Your task to perform on an android device: add a contact in the contacts app Image 0: 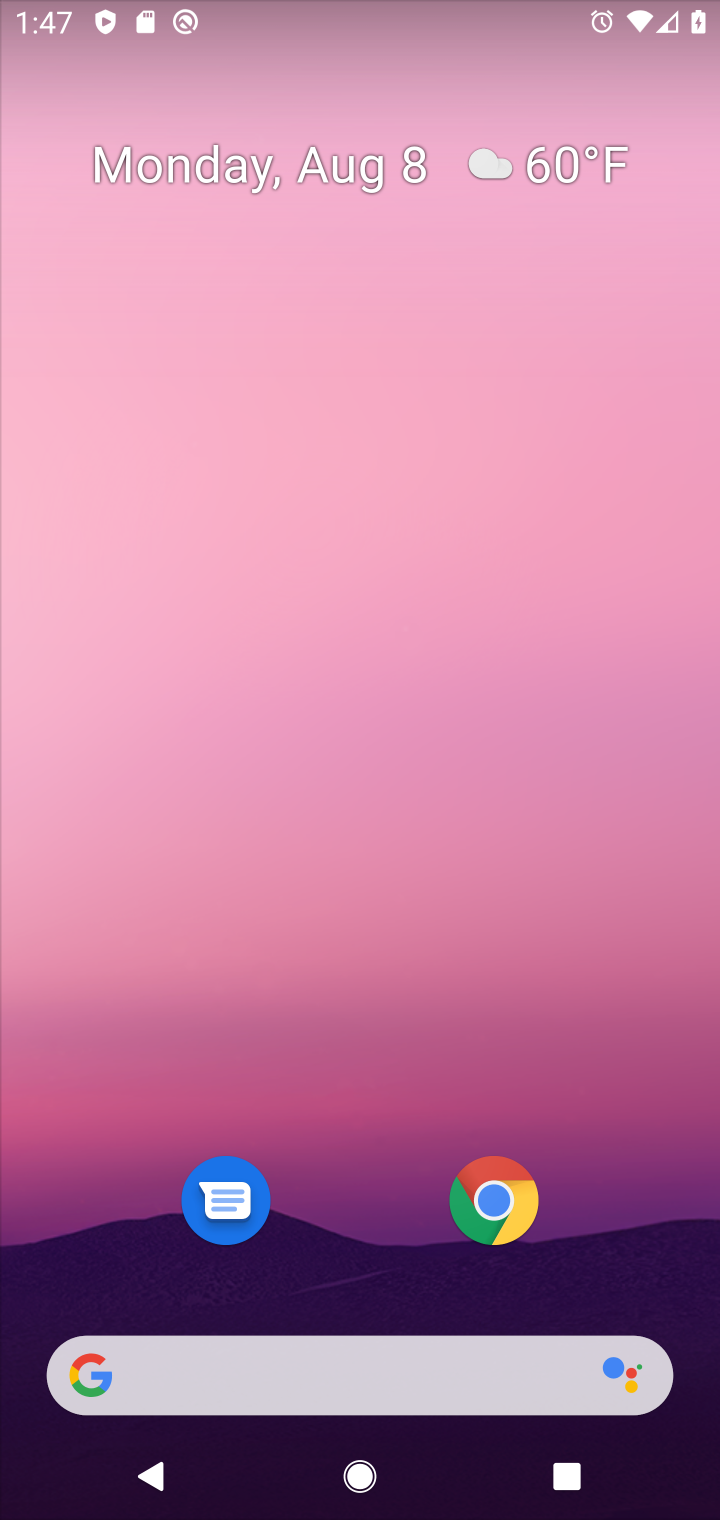
Step 0: drag from (390, 960) to (388, 35)
Your task to perform on an android device: add a contact in the contacts app Image 1: 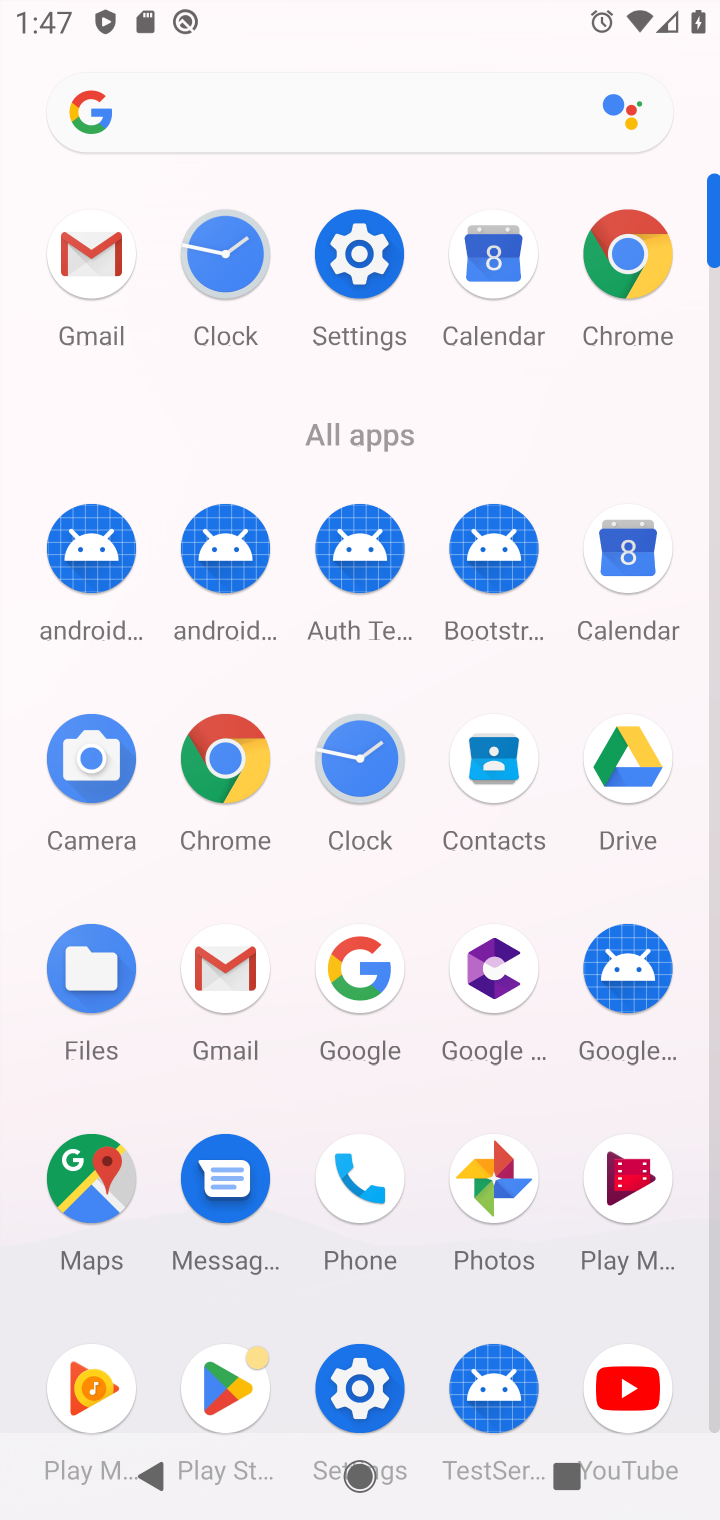
Step 1: click (495, 756)
Your task to perform on an android device: add a contact in the contacts app Image 2: 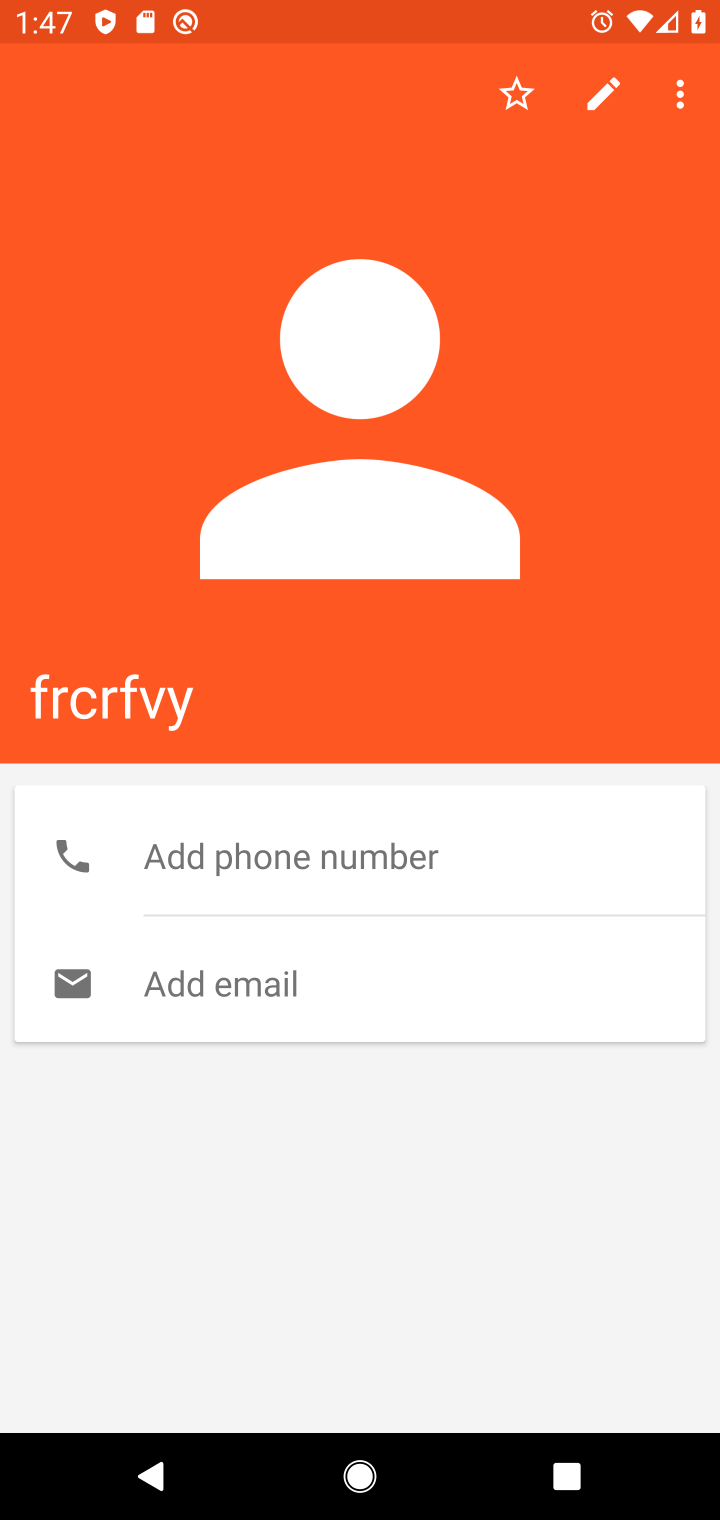
Step 2: press back button
Your task to perform on an android device: add a contact in the contacts app Image 3: 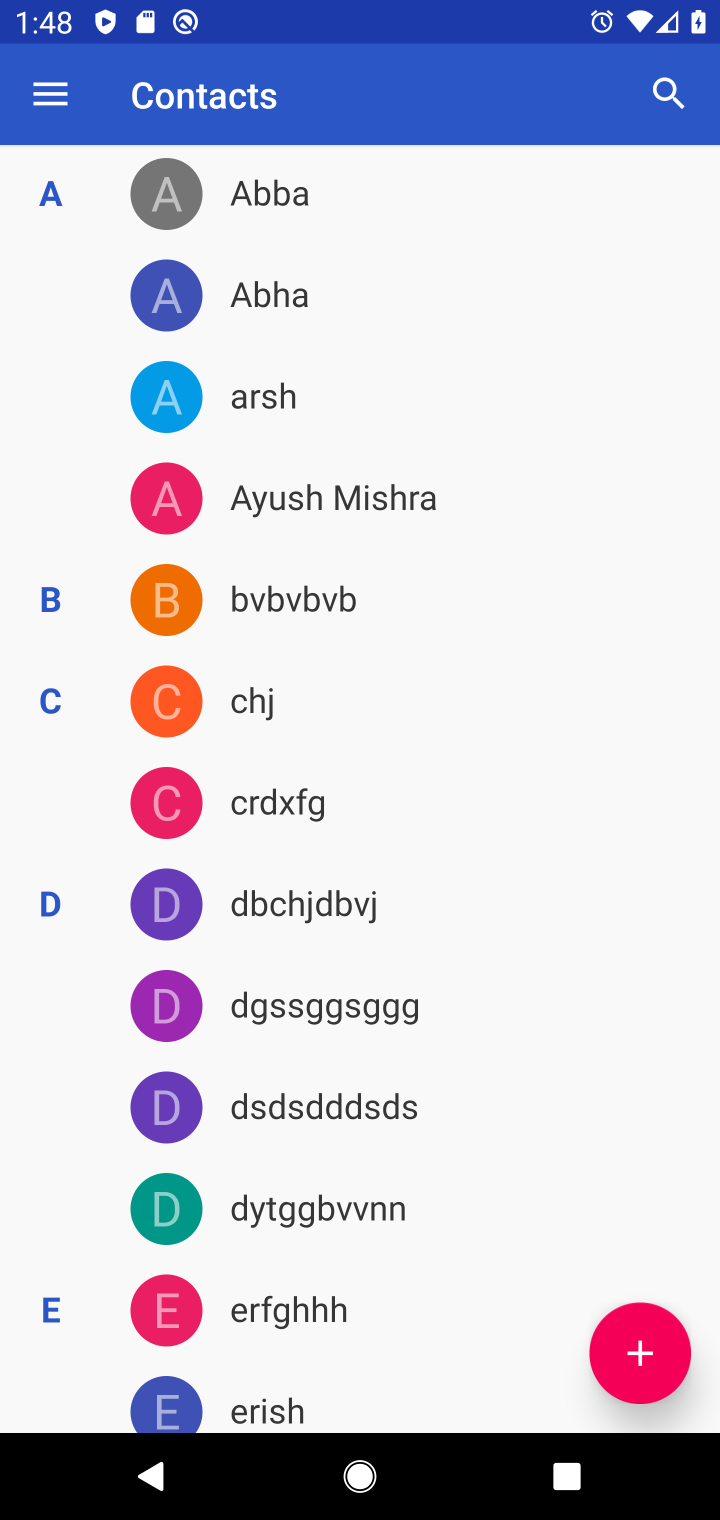
Step 3: click (655, 1340)
Your task to perform on an android device: add a contact in the contacts app Image 4: 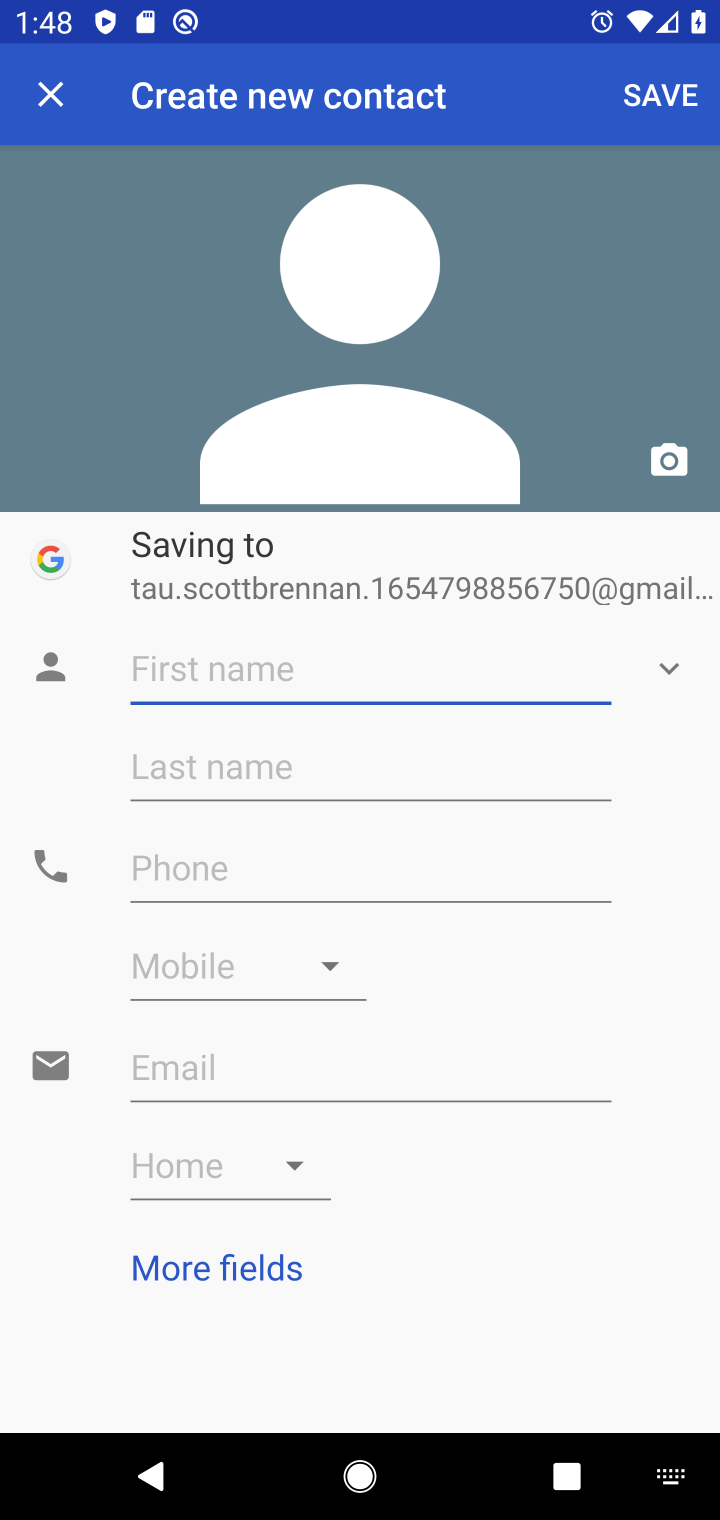
Step 4: type "aprnkt"
Your task to perform on an android device: add a contact in the contacts app Image 5: 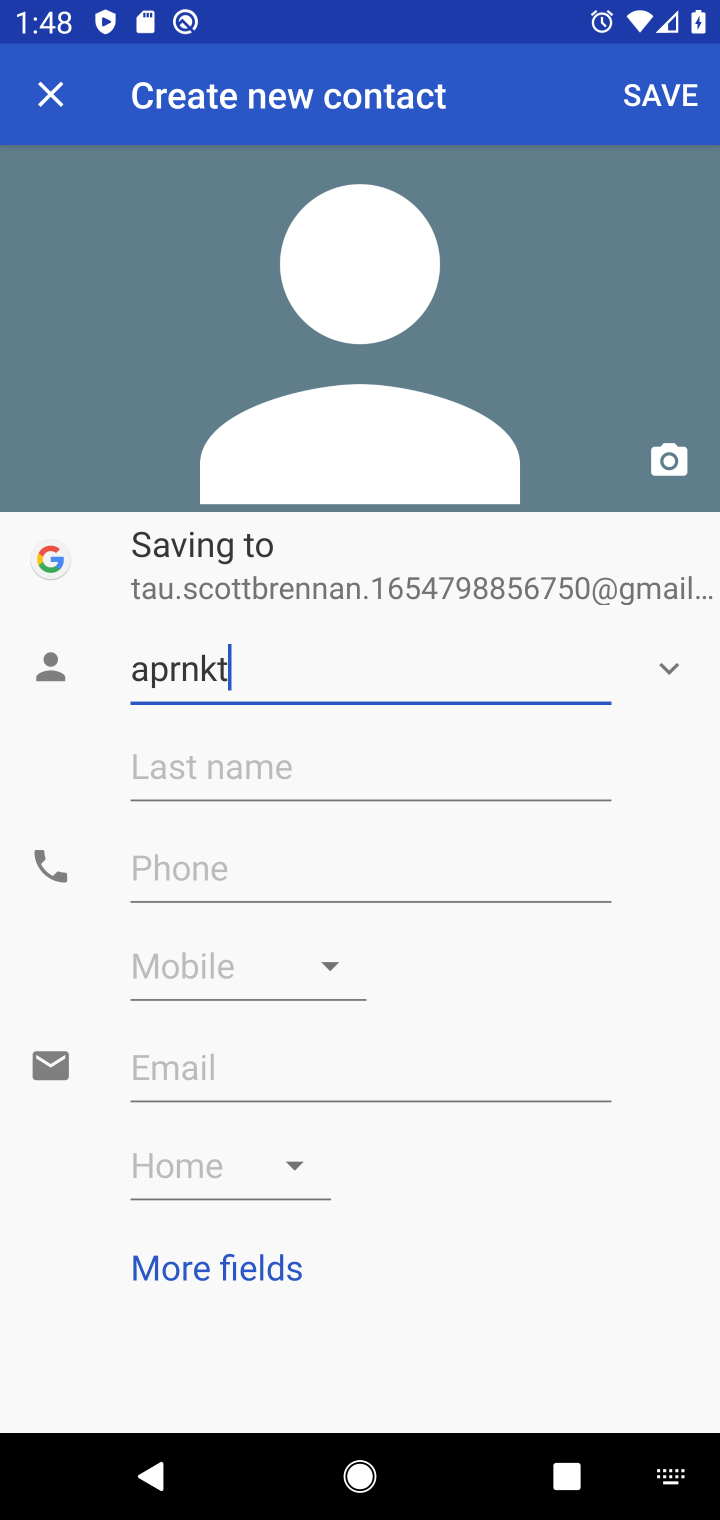
Step 5: click (651, 95)
Your task to perform on an android device: add a contact in the contacts app Image 6: 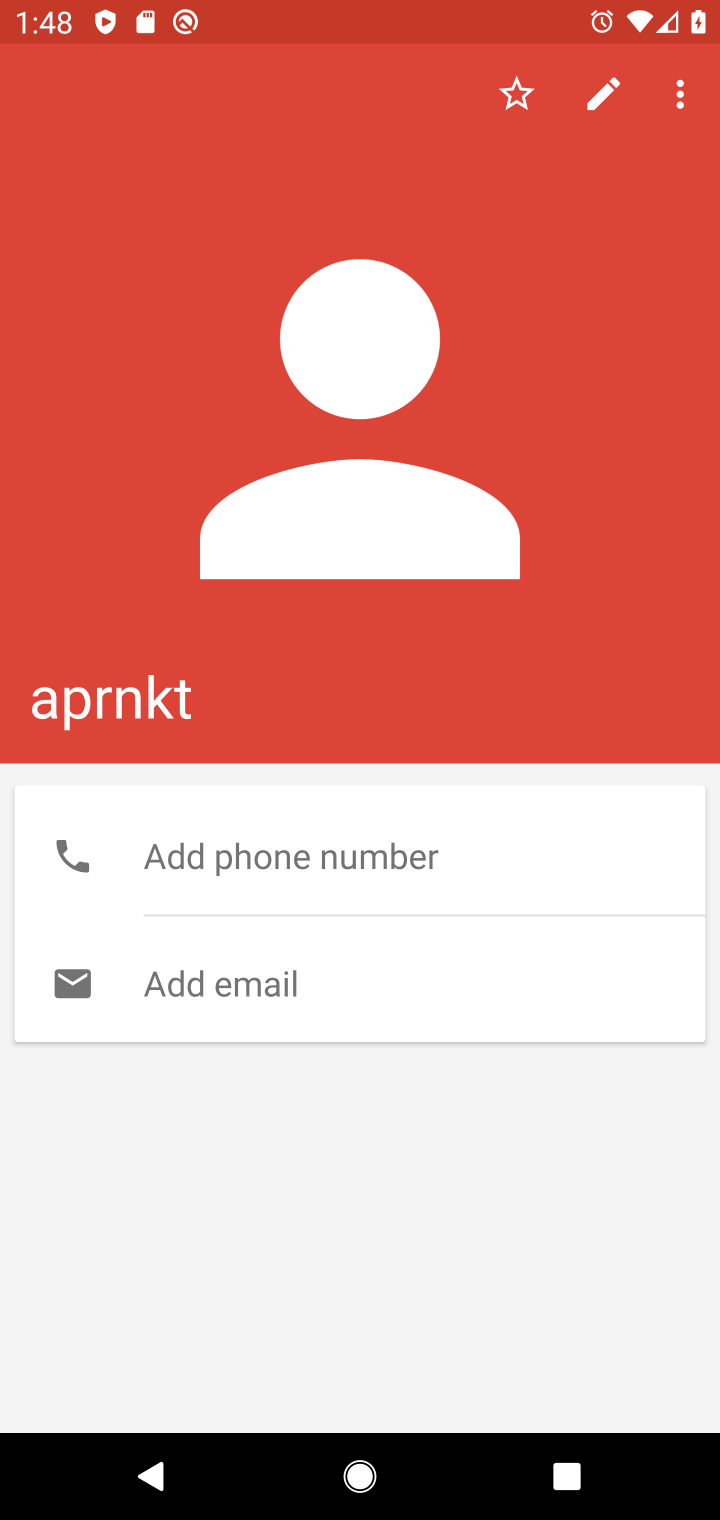
Step 6: task complete